Your task to perform on an android device: turn on the 12-hour format for clock Image 0: 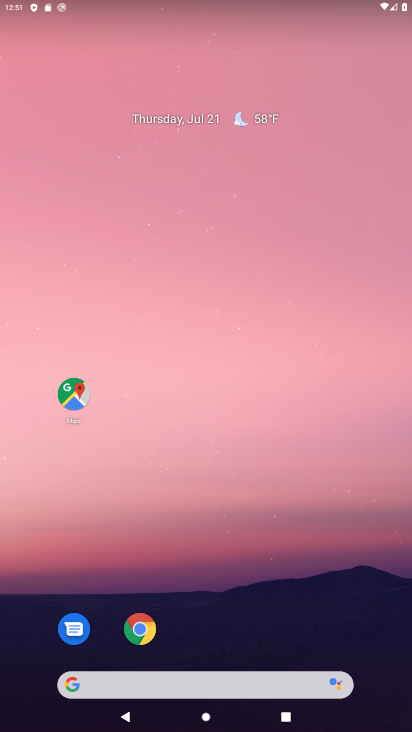
Step 0: drag from (197, 679) to (261, 162)
Your task to perform on an android device: turn on the 12-hour format for clock Image 1: 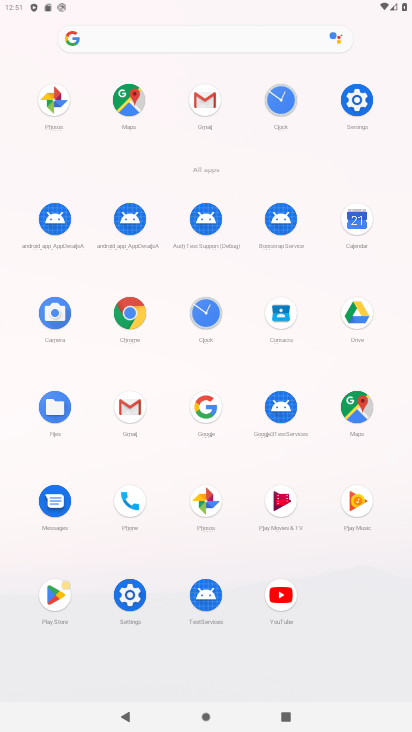
Step 1: click (278, 100)
Your task to perform on an android device: turn on the 12-hour format for clock Image 2: 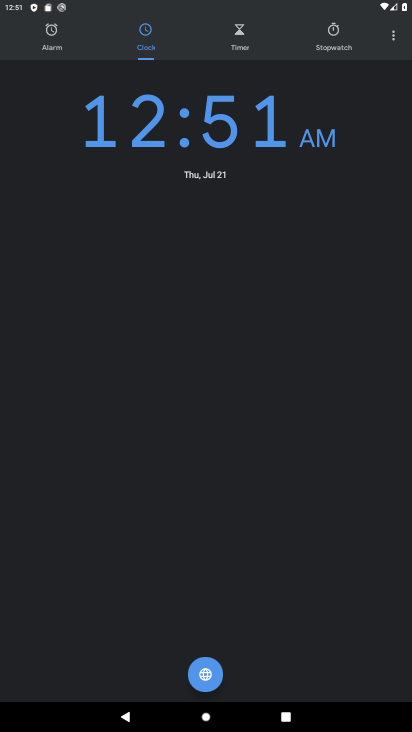
Step 2: click (396, 37)
Your task to perform on an android device: turn on the 12-hour format for clock Image 3: 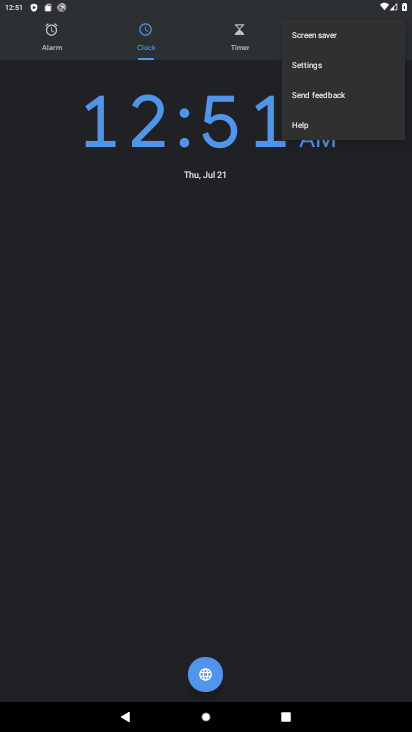
Step 3: click (308, 67)
Your task to perform on an android device: turn on the 12-hour format for clock Image 4: 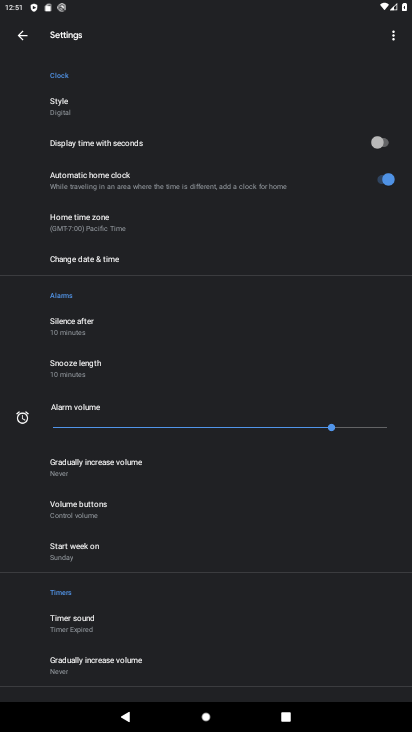
Step 4: click (110, 264)
Your task to perform on an android device: turn on the 12-hour format for clock Image 5: 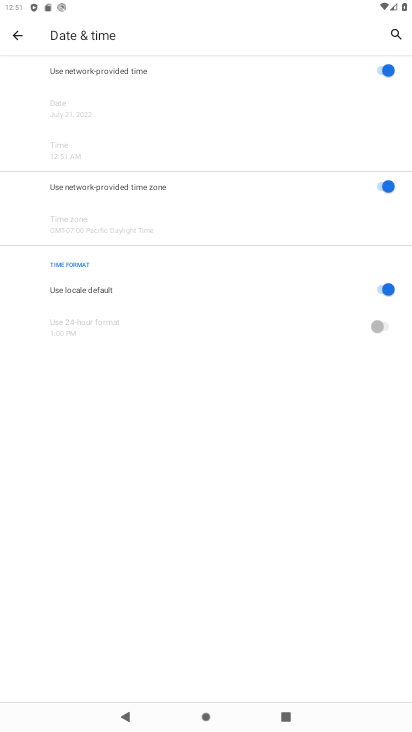
Step 5: task complete